Your task to perform on an android device: Go to privacy settings Image 0: 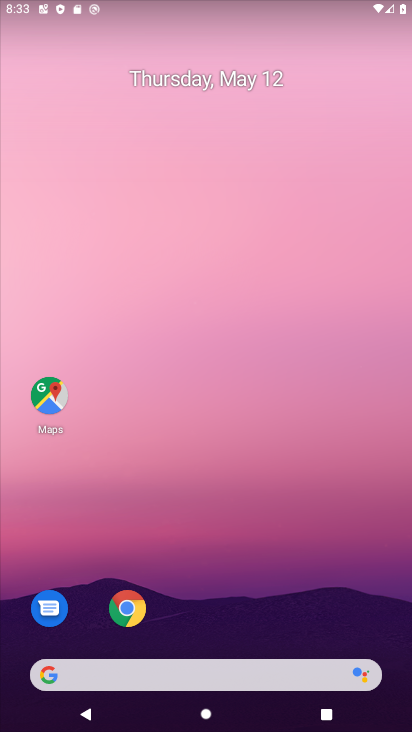
Step 0: click (136, 617)
Your task to perform on an android device: Go to privacy settings Image 1: 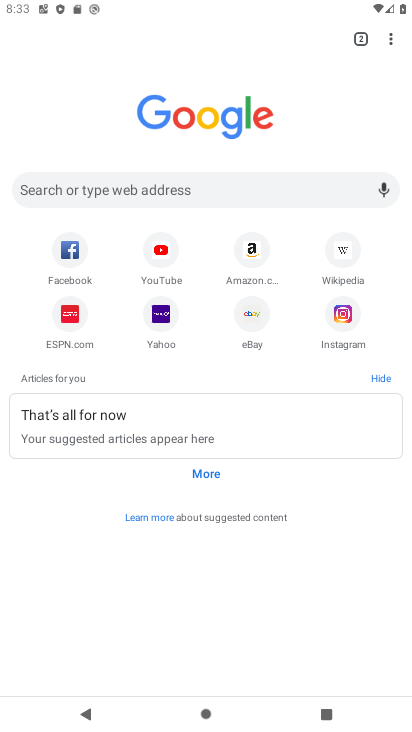
Step 1: drag from (401, 34) to (309, 329)
Your task to perform on an android device: Go to privacy settings Image 2: 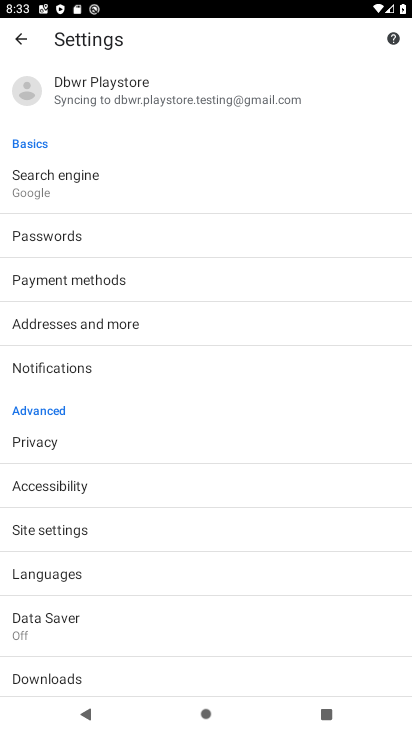
Step 2: click (119, 449)
Your task to perform on an android device: Go to privacy settings Image 3: 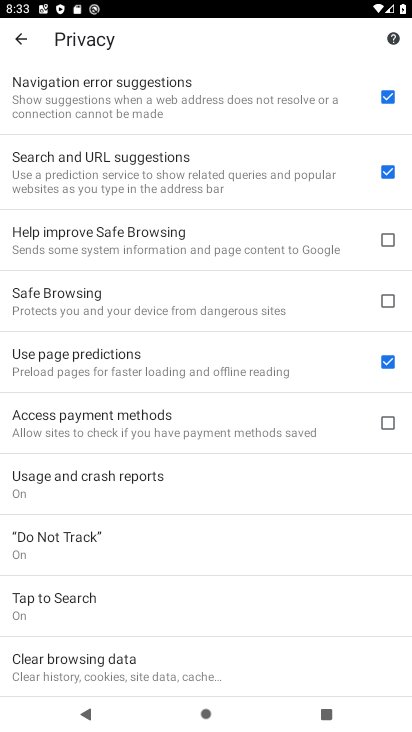
Step 3: task complete